Your task to perform on an android device: View the shopping cart on costco.com. Add "logitech g pro" to the cart on costco.com, then select checkout. Image 0: 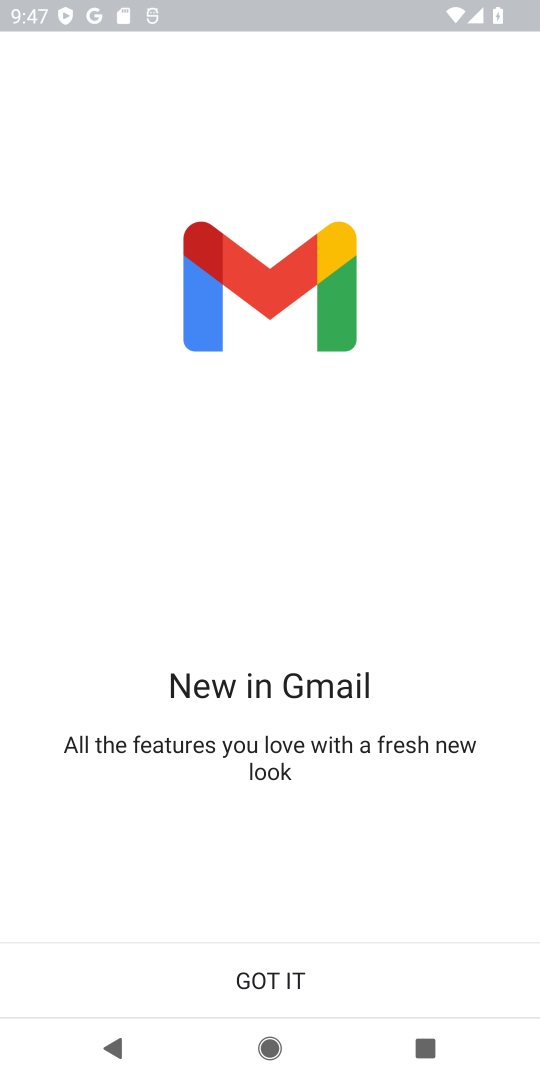
Step 0: press home button
Your task to perform on an android device: View the shopping cart on costco.com. Add "logitech g pro" to the cart on costco.com, then select checkout. Image 1: 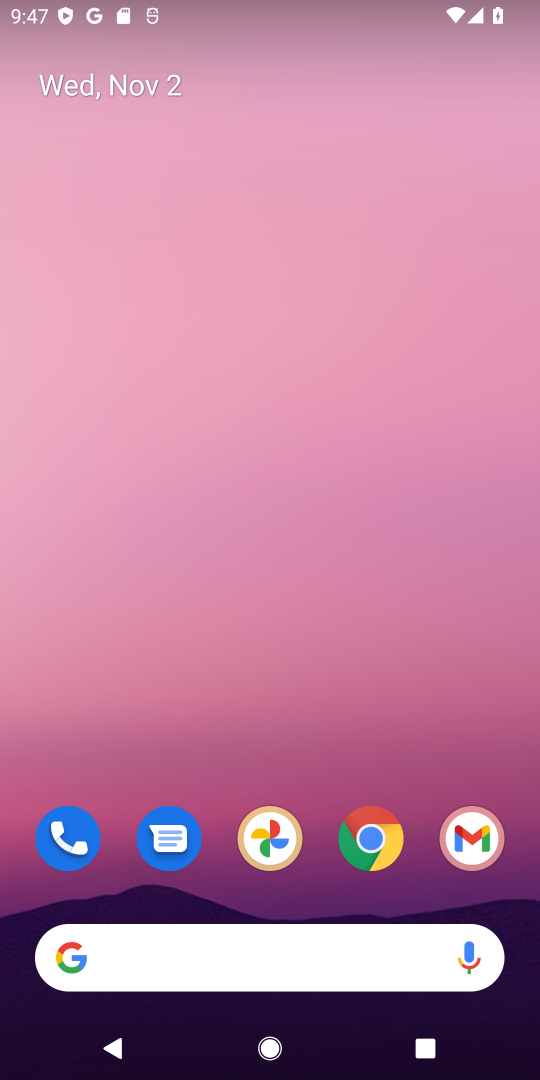
Step 1: click (380, 845)
Your task to perform on an android device: View the shopping cart on costco.com. Add "logitech g pro" to the cart on costco.com, then select checkout. Image 2: 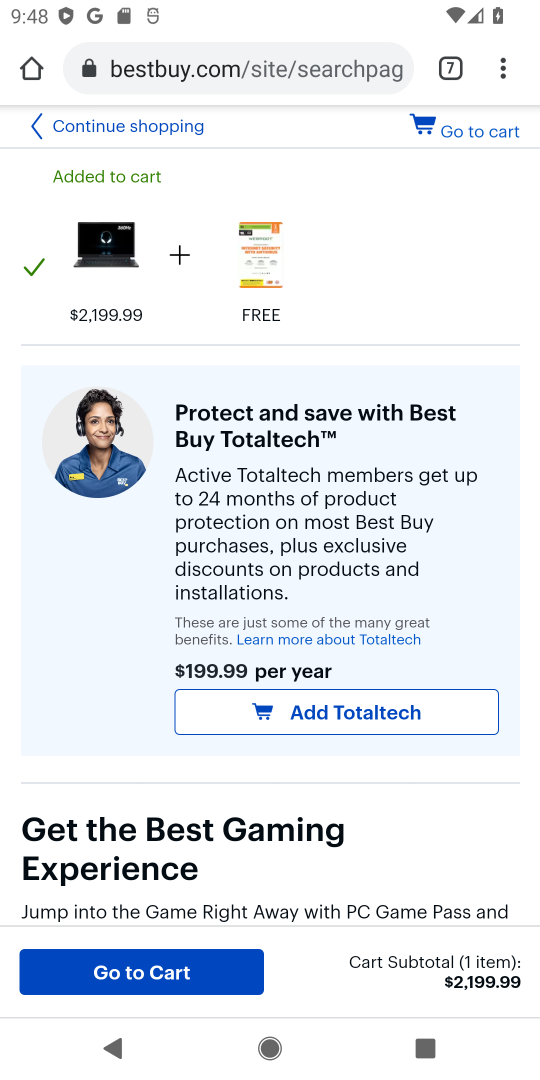
Step 2: click (448, 73)
Your task to perform on an android device: View the shopping cart on costco.com. Add "logitech g pro" to the cart on costco.com, then select checkout. Image 3: 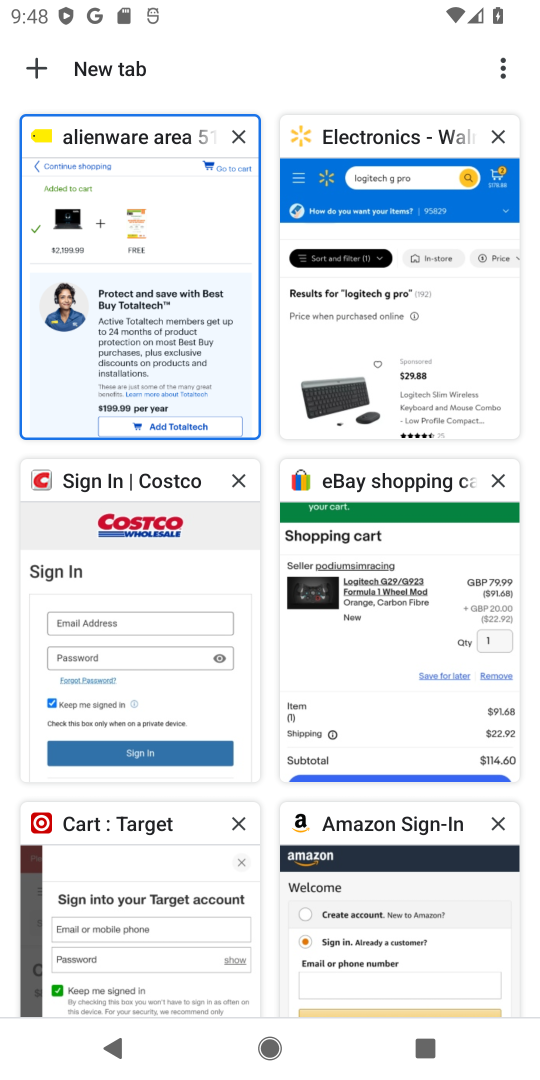
Step 3: click (121, 603)
Your task to perform on an android device: View the shopping cart on costco.com. Add "logitech g pro" to the cart on costco.com, then select checkout. Image 4: 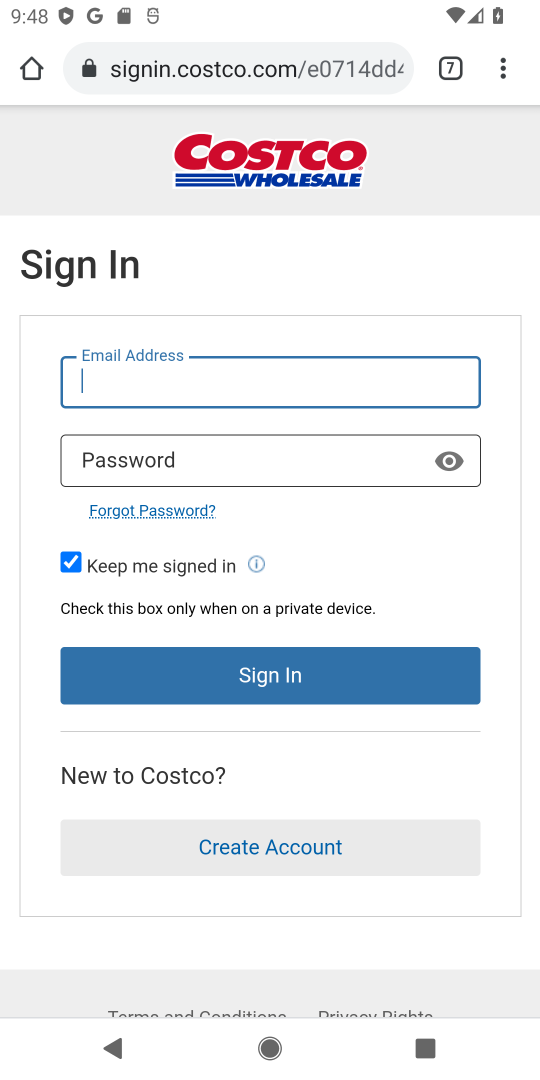
Step 4: press back button
Your task to perform on an android device: View the shopping cart on costco.com. Add "logitech g pro" to the cart on costco.com, then select checkout. Image 5: 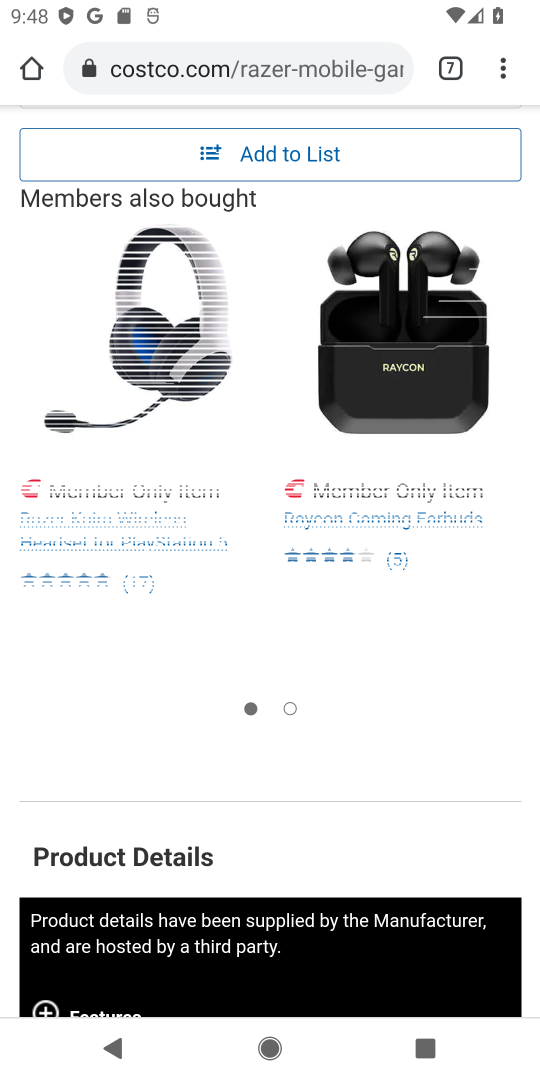
Step 5: drag from (405, 177) to (430, 923)
Your task to perform on an android device: View the shopping cart on costco.com. Add "logitech g pro" to the cart on costco.com, then select checkout. Image 6: 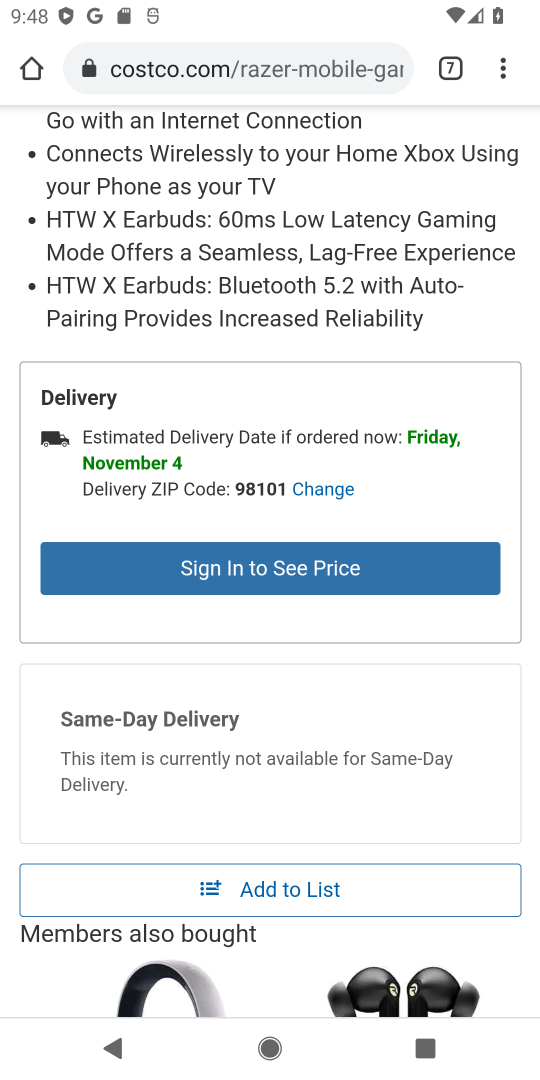
Step 6: drag from (399, 157) to (378, 1045)
Your task to perform on an android device: View the shopping cart on costco.com. Add "logitech g pro" to the cart on costco.com, then select checkout. Image 7: 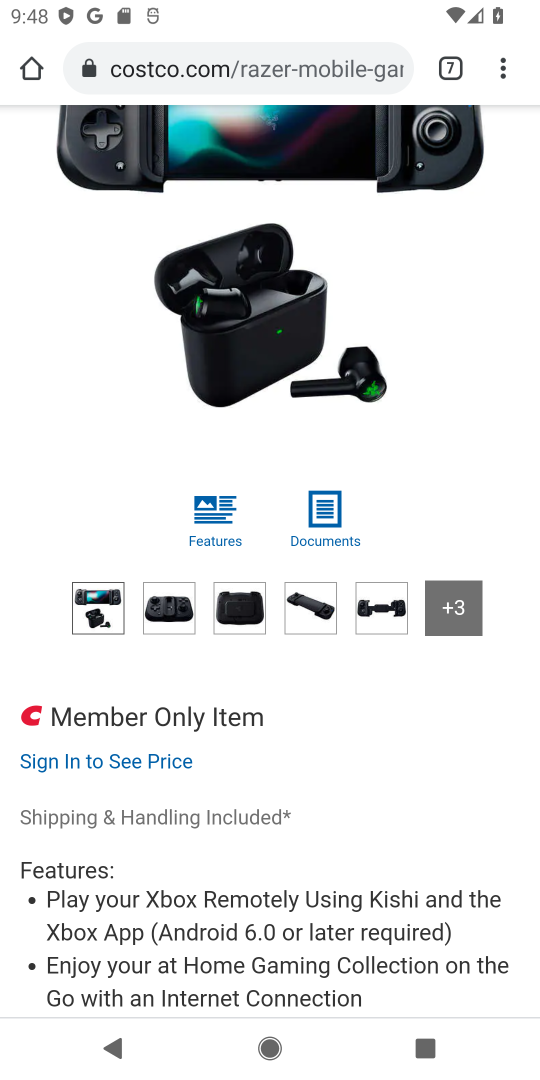
Step 7: drag from (475, 197) to (400, 734)
Your task to perform on an android device: View the shopping cart on costco.com. Add "logitech g pro" to the cart on costco.com, then select checkout. Image 8: 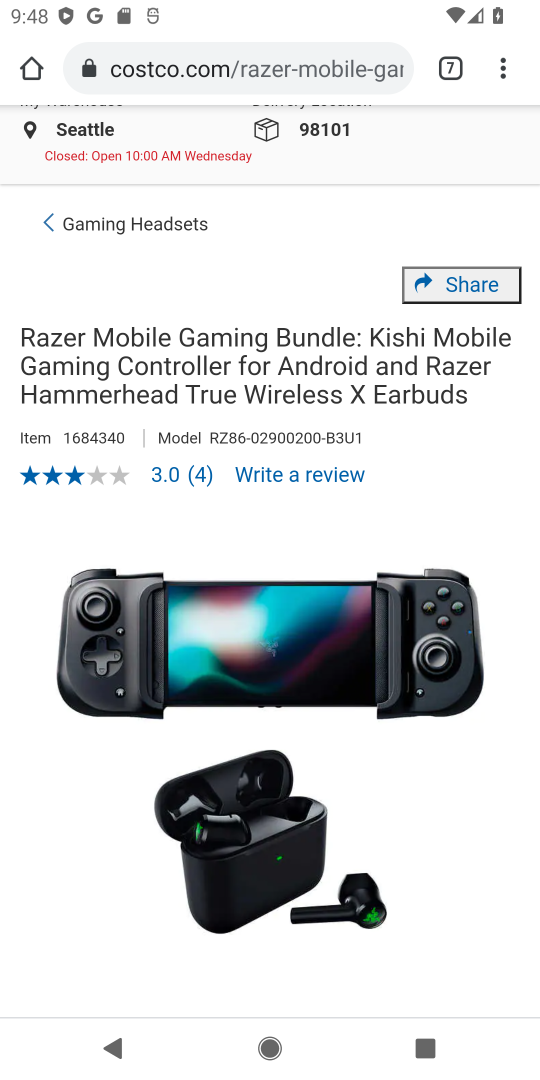
Step 8: drag from (376, 130) to (360, 590)
Your task to perform on an android device: View the shopping cart on costco.com. Add "logitech g pro" to the cart on costco.com, then select checkout. Image 9: 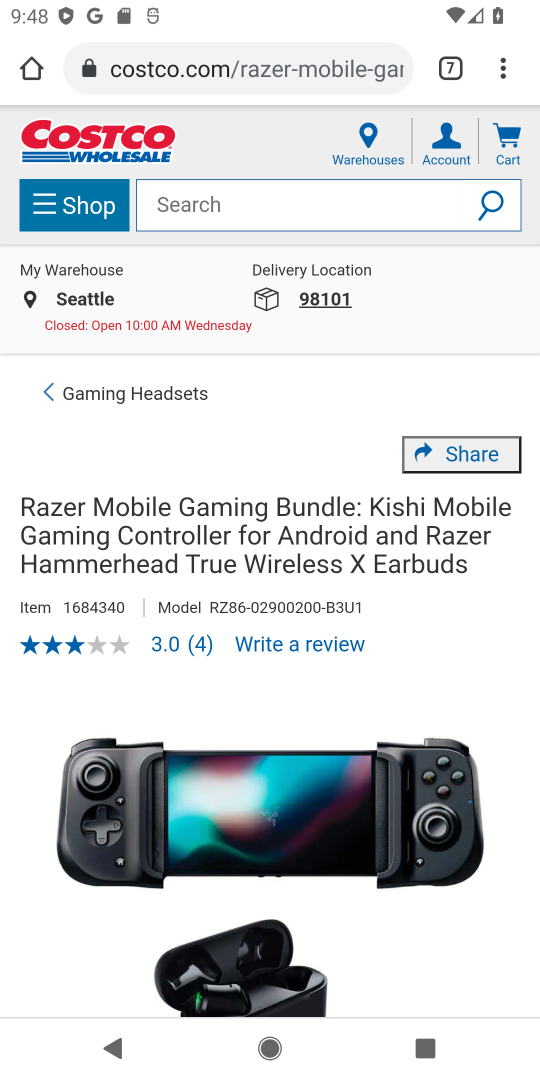
Step 9: click (318, 214)
Your task to perform on an android device: View the shopping cart on costco.com. Add "logitech g pro" to the cart on costco.com, then select checkout. Image 10: 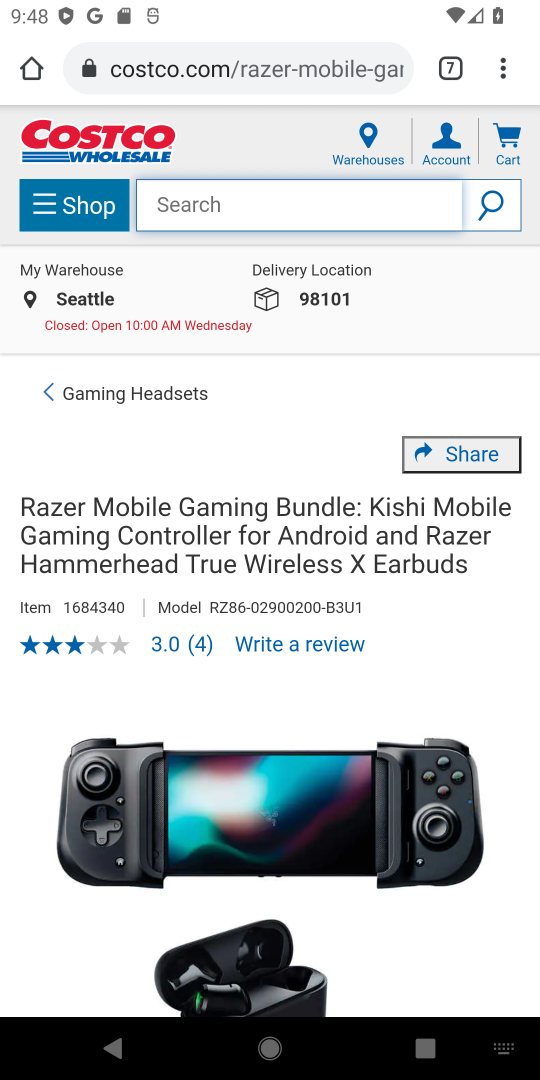
Step 10: type "logitech g pro"
Your task to perform on an android device: View the shopping cart on costco.com. Add "logitech g pro" to the cart on costco.com, then select checkout. Image 11: 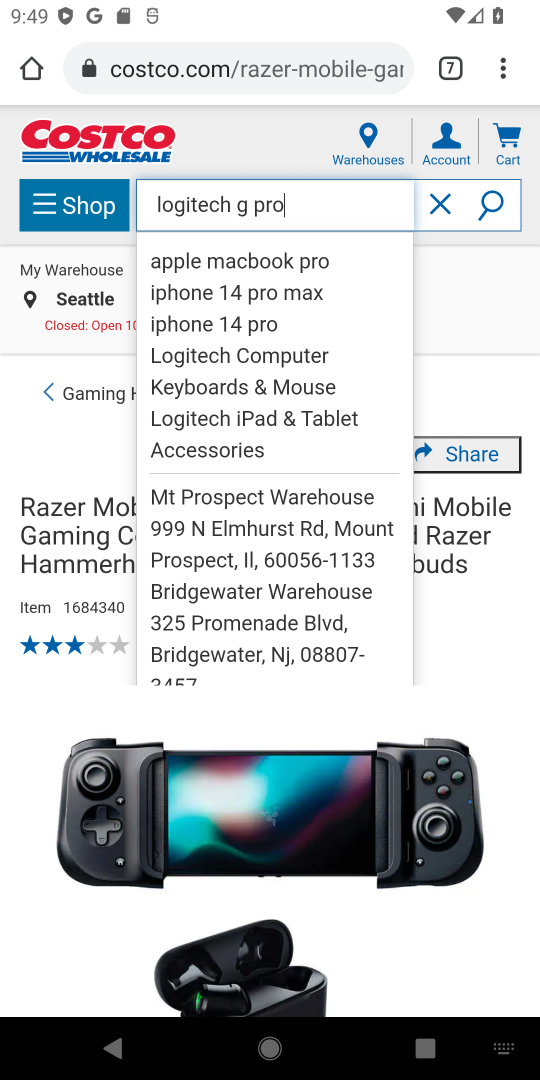
Step 11: click (299, 414)
Your task to perform on an android device: View the shopping cart on costco.com. Add "logitech g pro" to the cart on costco.com, then select checkout. Image 12: 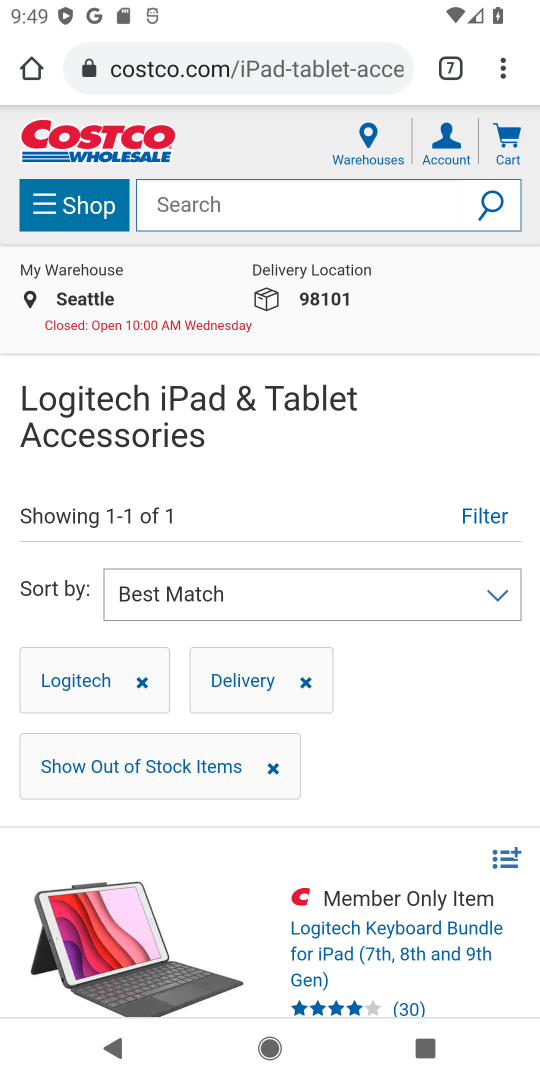
Step 12: drag from (321, 821) to (233, 274)
Your task to perform on an android device: View the shopping cart on costco.com. Add "logitech g pro" to the cart on costco.com, then select checkout. Image 13: 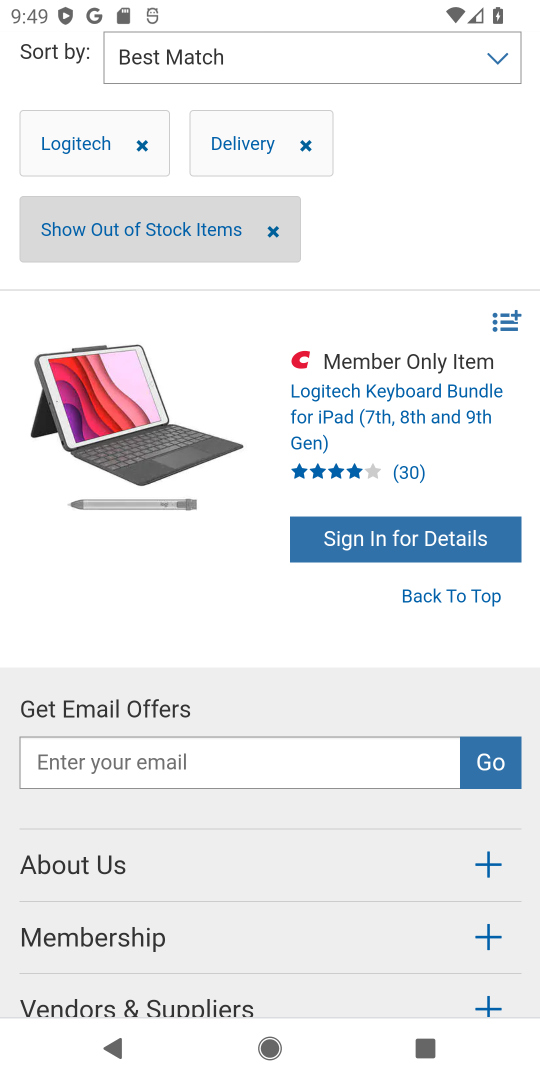
Step 13: click (452, 475)
Your task to perform on an android device: View the shopping cart on costco.com. Add "logitech g pro" to the cart on costco.com, then select checkout. Image 14: 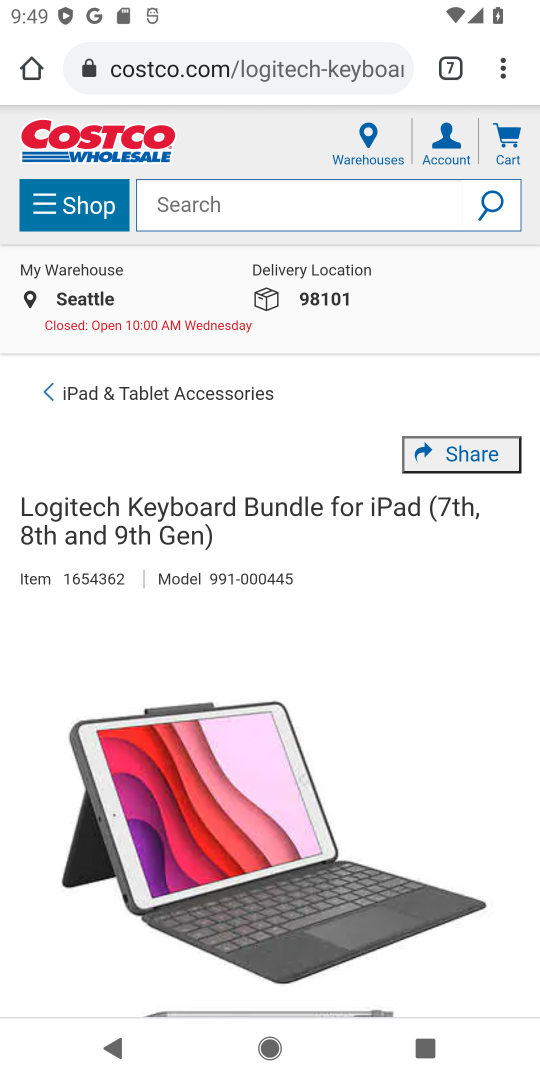
Step 14: drag from (398, 785) to (446, 134)
Your task to perform on an android device: View the shopping cart on costco.com. Add "logitech g pro" to the cart on costco.com, then select checkout. Image 15: 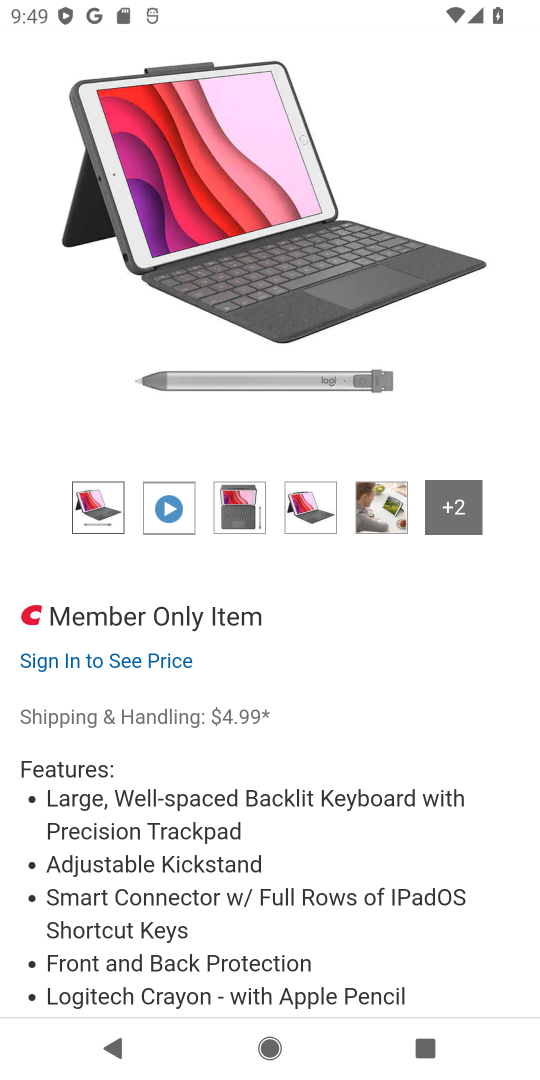
Step 15: drag from (259, 768) to (403, 61)
Your task to perform on an android device: View the shopping cart on costco.com. Add "logitech g pro" to the cart on costco.com, then select checkout. Image 16: 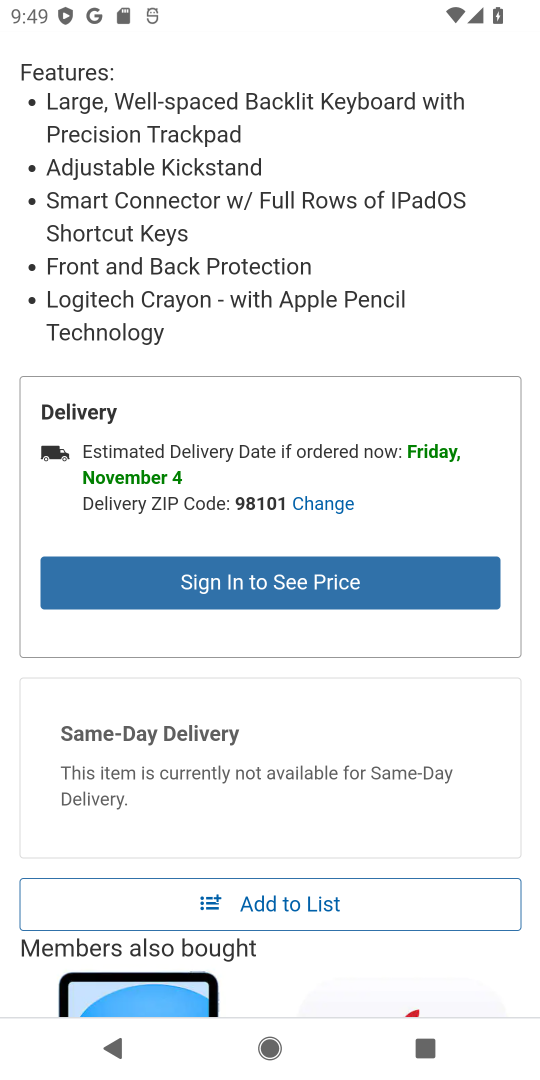
Step 16: click (243, 890)
Your task to perform on an android device: View the shopping cart on costco.com. Add "logitech g pro" to the cart on costco.com, then select checkout. Image 17: 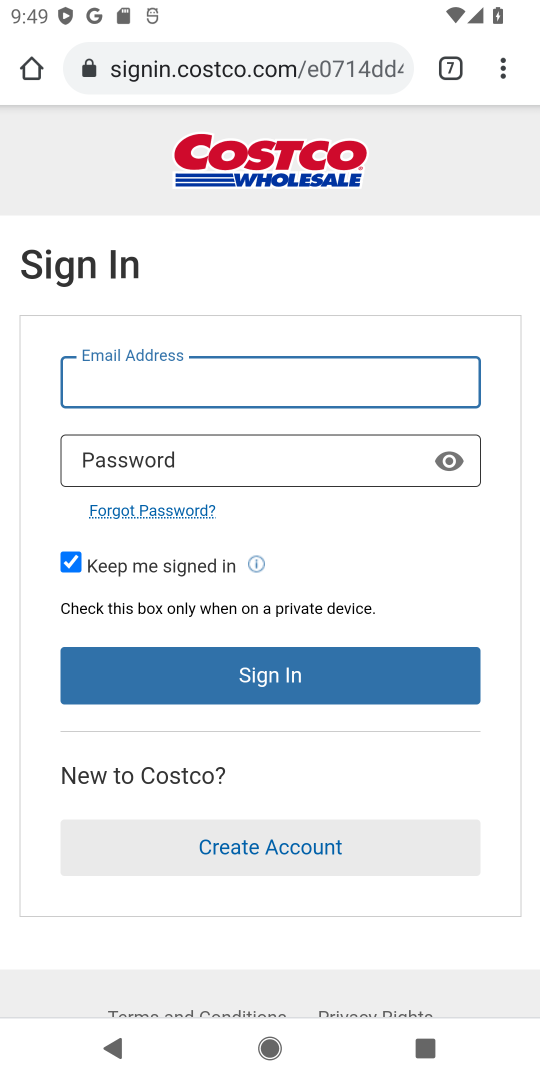
Step 17: task complete